Your task to perform on an android device: toggle improve location accuracy Image 0: 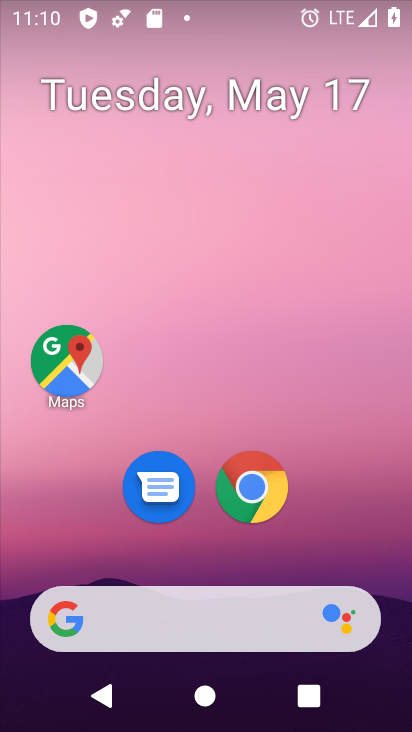
Step 0: press home button
Your task to perform on an android device: toggle improve location accuracy Image 1: 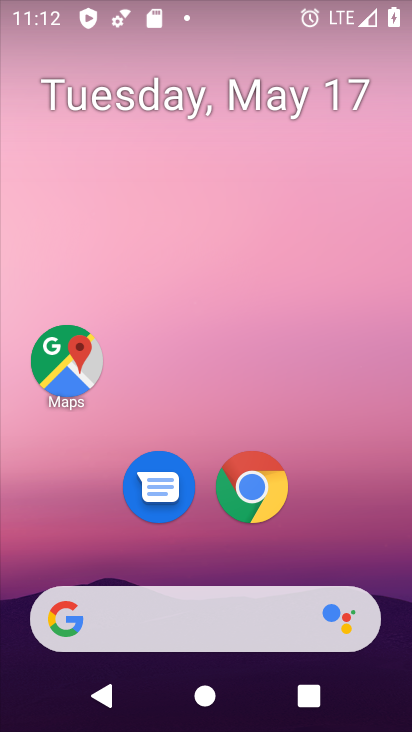
Step 1: drag from (304, 531) to (410, 266)
Your task to perform on an android device: toggle improve location accuracy Image 2: 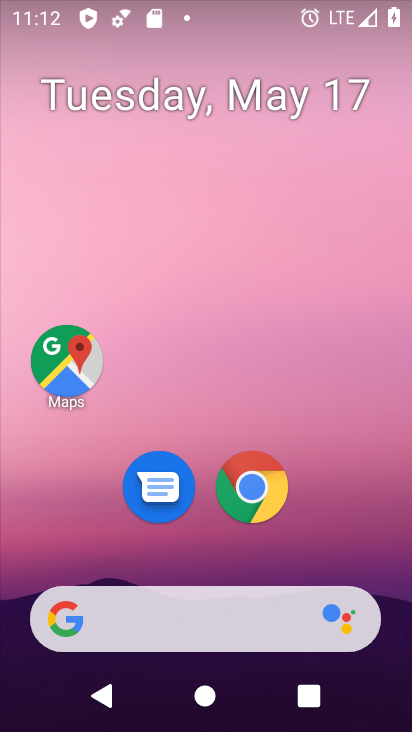
Step 2: drag from (331, 485) to (284, 270)
Your task to perform on an android device: toggle improve location accuracy Image 3: 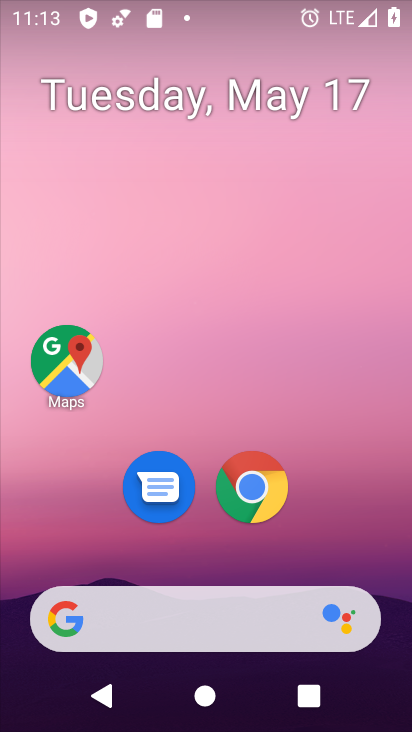
Step 3: drag from (384, 541) to (243, 53)
Your task to perform on an android device: toggle improve location accuracy Image 4: 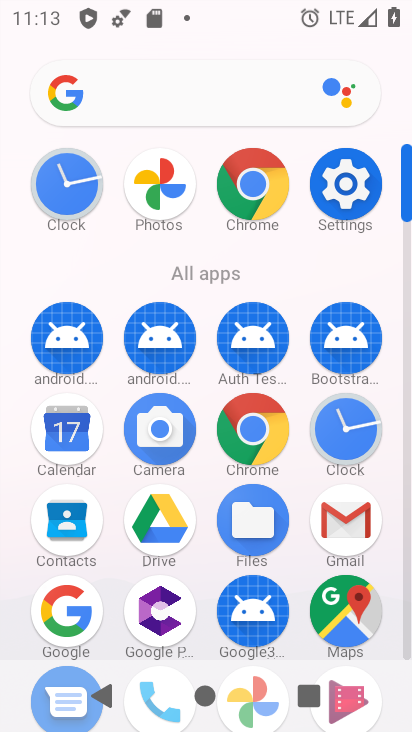
Step 4: click (362, 207)
Your task to perform on an android device: toggle improve location accuracy Image 5: 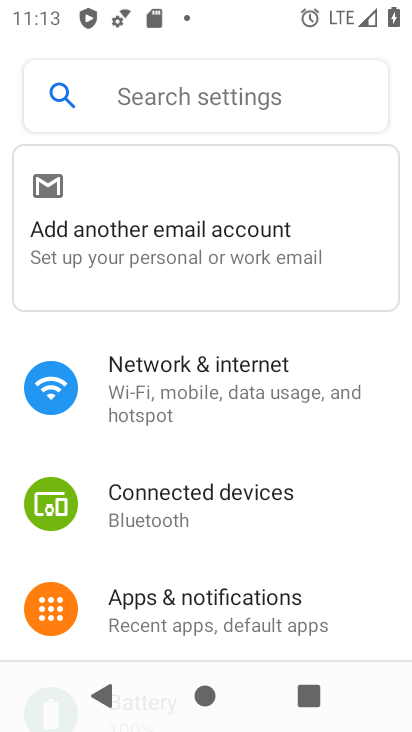
Step 5: drag from (157, 576) to (184, 109)
Your task to perform on an android device: toggle improve location accuracy Image 6: 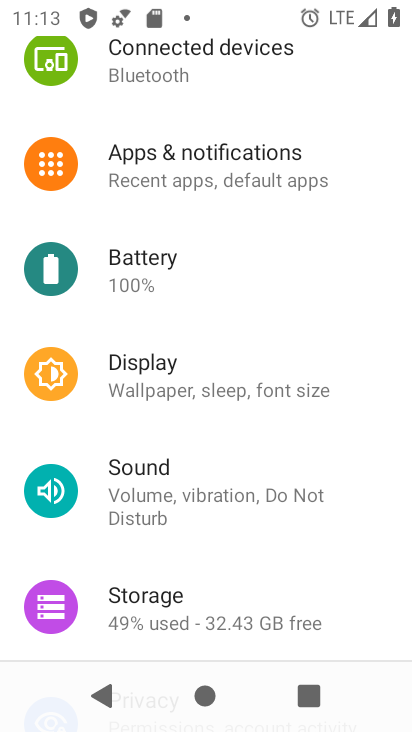
Step 6: drag from (178, 532) to (203, 198)
Your task to perform on an android device: toggle improve location accuracy Image 7: 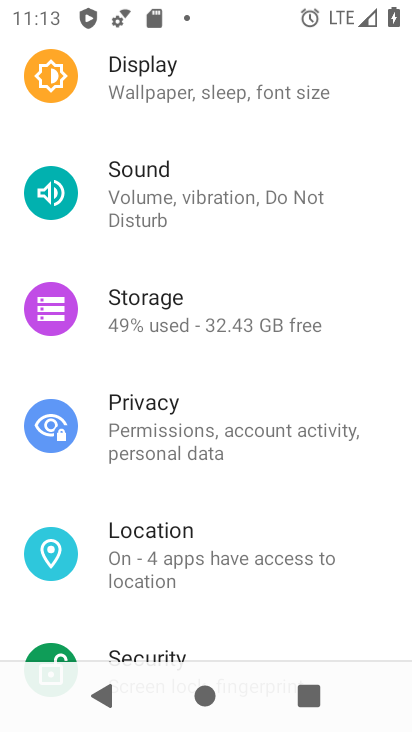
Step 7: drag from (252, 490) to (261, 354)
Your task to perform on an android device: toggle improve location accuracy Image 8: 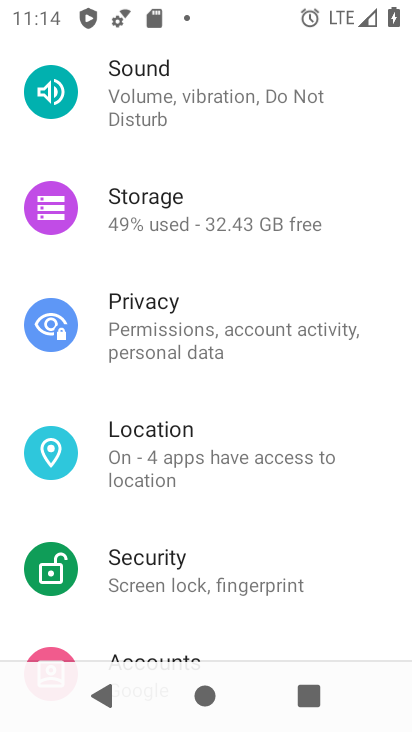
Step 8: click (111, 434)
Your task to perform on an android device: toggle improve location accuracy Image 9: 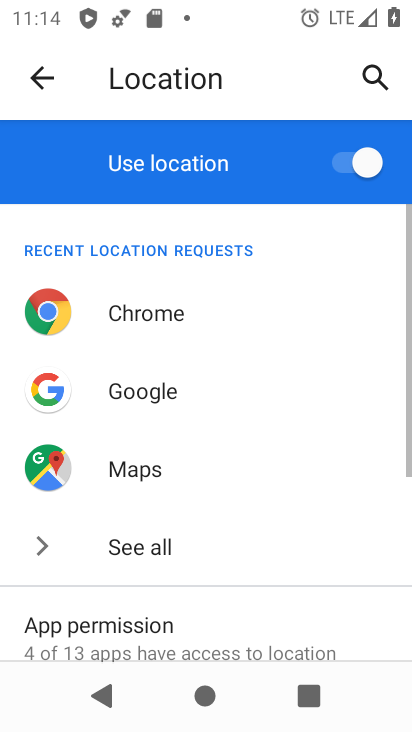
Step 9: drag from (107, 422) to (128, 146)
Your task to perform on an android device: toggle improve location accuracy Image 10: 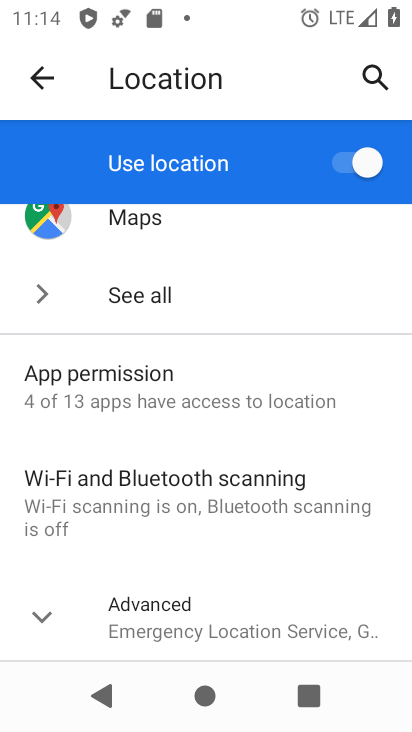
Step 10: click (100, 516)
Your task to perform on an android device: toggle improve location accuracy Image 11: 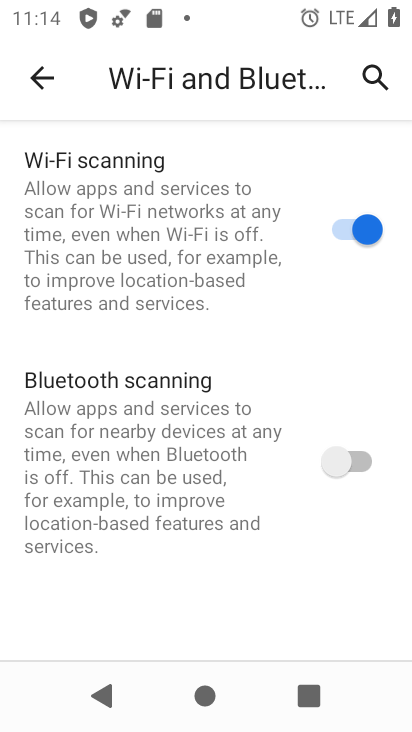
Step 11: click (344, 448)
Your task to perform on an android device: toggle improve location accuracy Image 12: 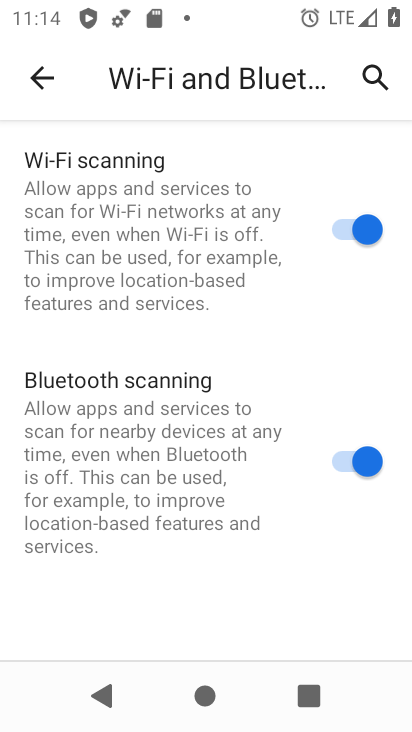
Step 12: task complete